Your task to perform on an android device: Open sound settings Image 0: 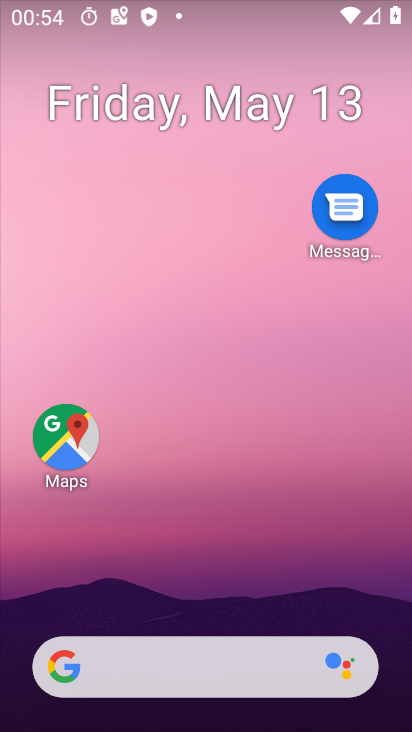
Step 0: press home button
Your task to perform on an android device: Open sound settings Image 1: 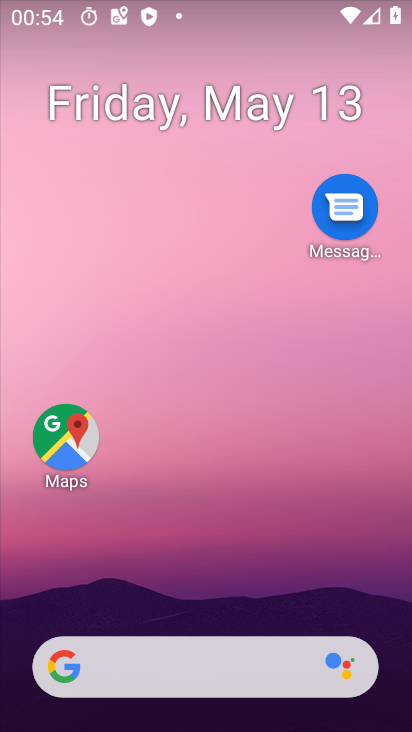
Step 1: drag from (321, 557) to (272, 30)
Your task to perform on an android device: Open sound settings Image 2: 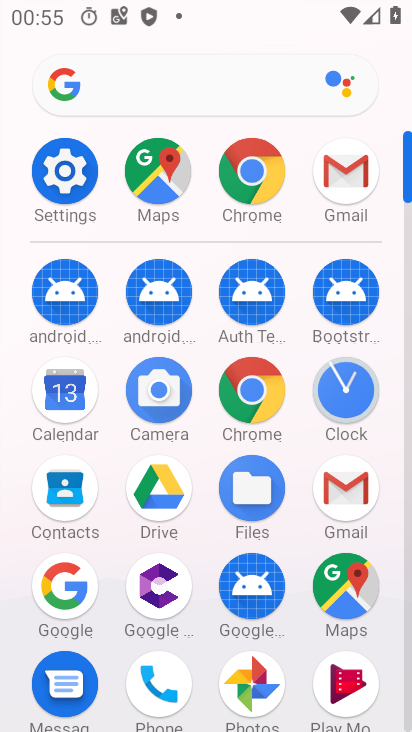
Step 2: click (58, 205)
Your task to perform on an android device: Open sound settings Image 3: 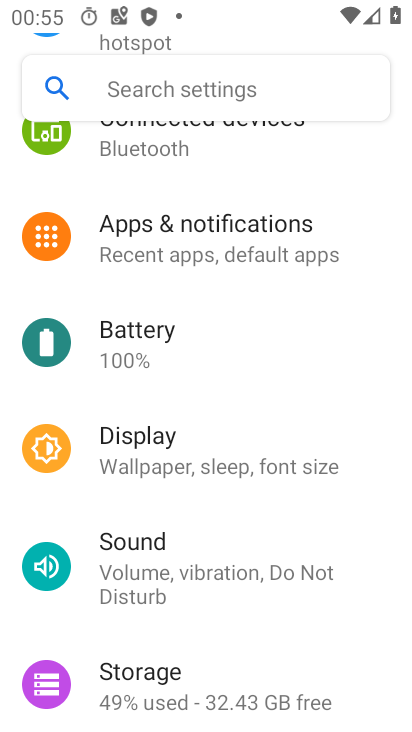
Step 3: click (124, 541)
Your task to perform on an android device: Open sound settings Image 4: 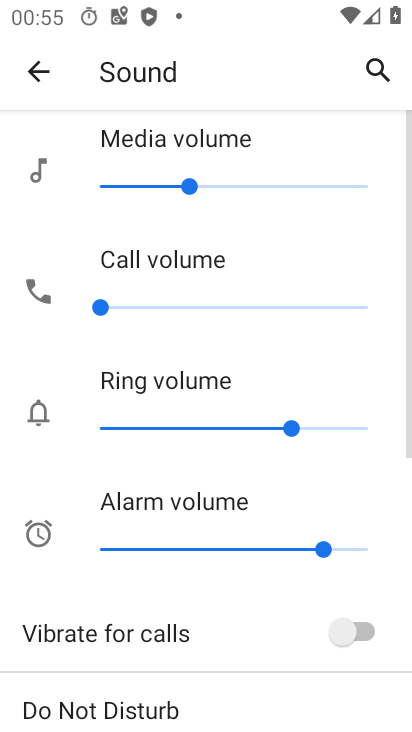
Step 4: task complete